Your task to perform on an android device: toggle improve location accuracy Image 0: 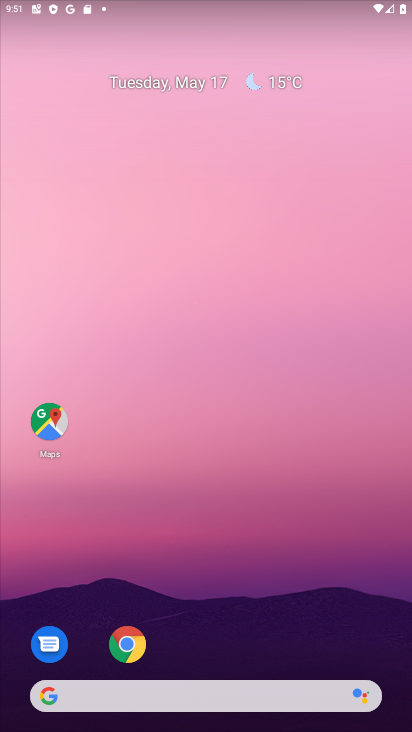
Step 0: drag from (255, 641) to (224, 126)
Your task to perform on an android device: toggle improve location accuracy Image 1: 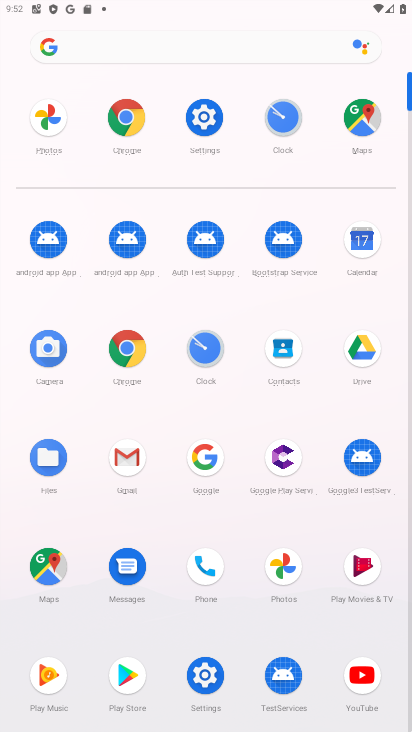
Step 1: click (208, 674)
Your task to perform on an android device: toggle improve location accuracy Image 2: 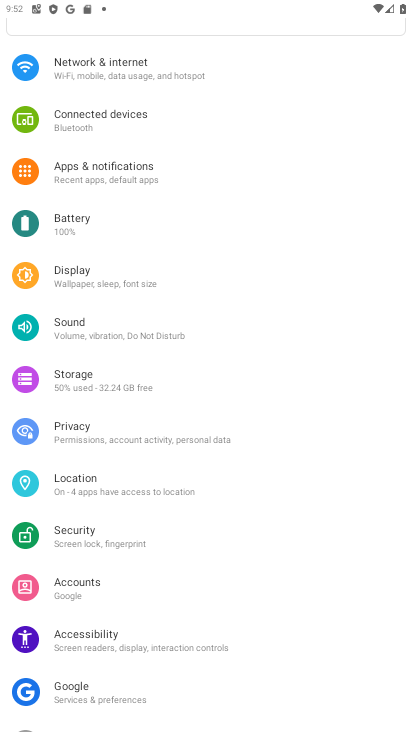
Step 2: click (58, 480)
Your task to perform on an android device: toggle improve location accuracy Image 3: 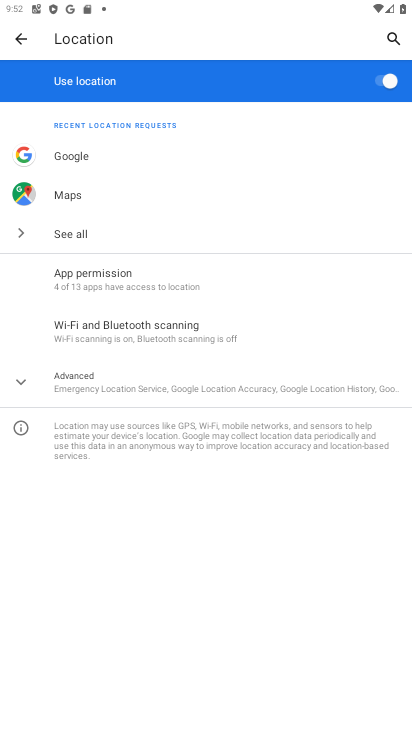
Step 3: click (108, 377)
Your task to perform on an android device: toggle improve location accuracy Image 4: 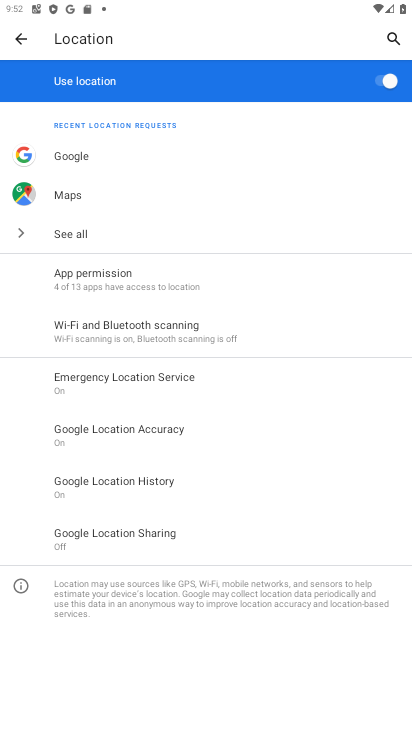
Step 4: click (118, 437)
Your task to perform on an android device: toggle improve location accuracy Image 5: 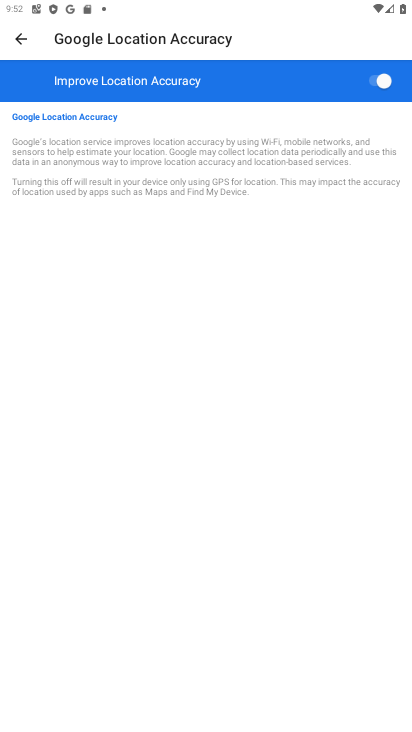
Step 5: click (368, 83)
Your task to perform on an android device: toggle improve location accuracy Image 6: 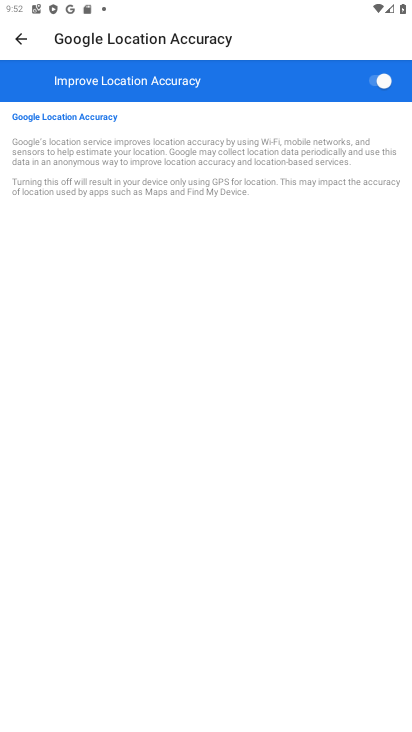
Step 6: click (368, 83)
Your task to perform on an android device: toggle improve location accuracy Image 7: 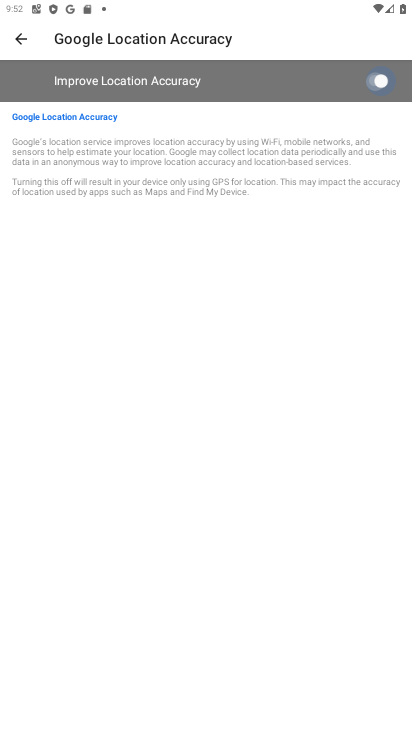
Step 7: click (368, 83)
Your task to perform on an android device: toggle improve location accuracy Image 8: 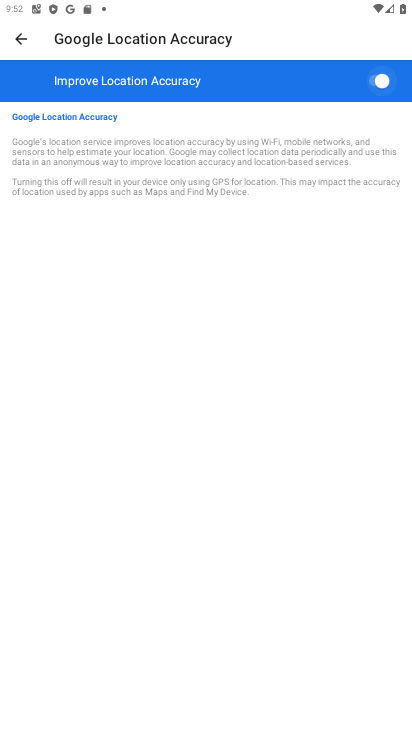
Step 8: click (368, 83)
Your task to perform on an android device: toggle improve location accuracy Image 9: 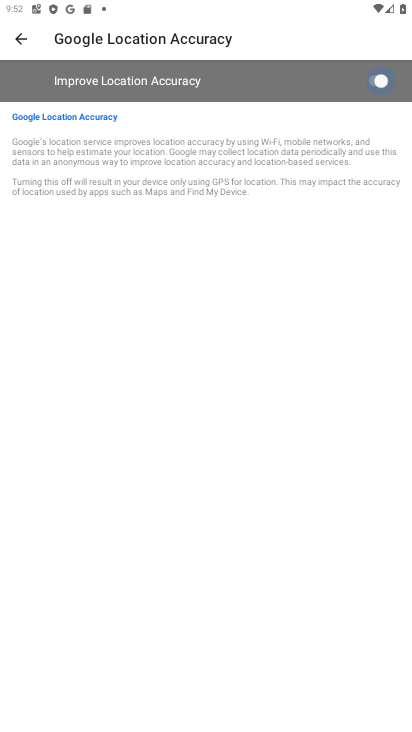
Step 9: click (368, 83)
Your task to perform on an android device: toggle improve location accuracy Image 10: 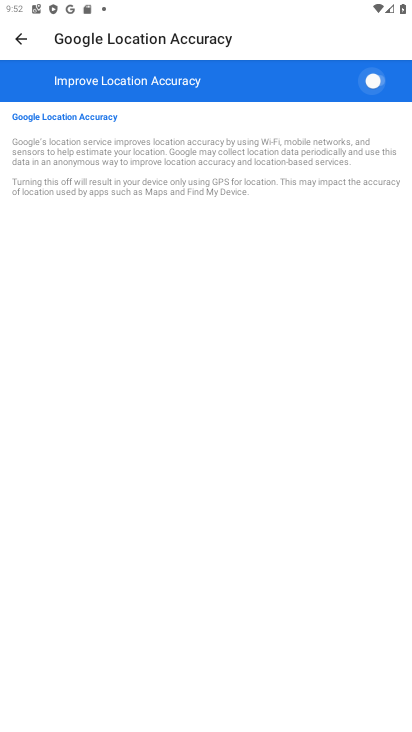
Step 10: click (368, 83)
Your task to perform on an android device: toggle improve location accuracy Image 11: 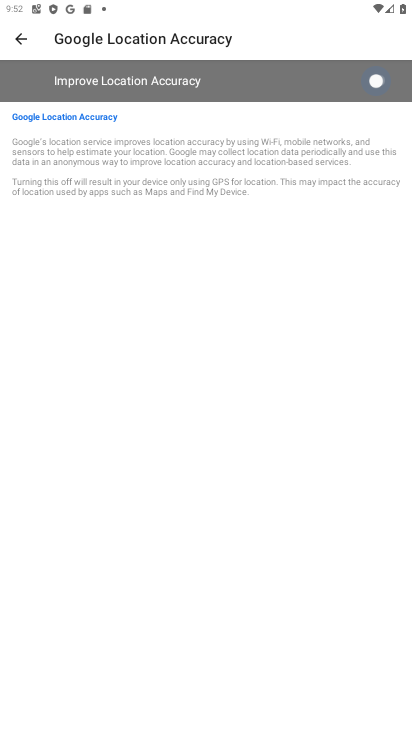
Step 11: click (368, 83)
Your task to perform on an android device: toggle improve location accuracy Image 12: 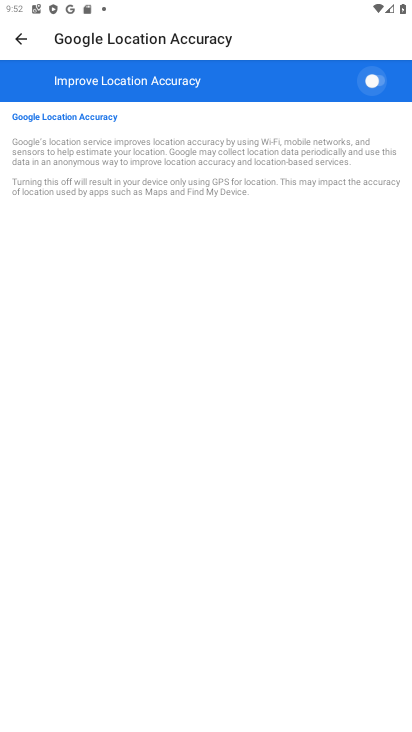
Step 12: click (368, 83)
Your task to perform on an android device: toggle improve location accuracy Image 13: 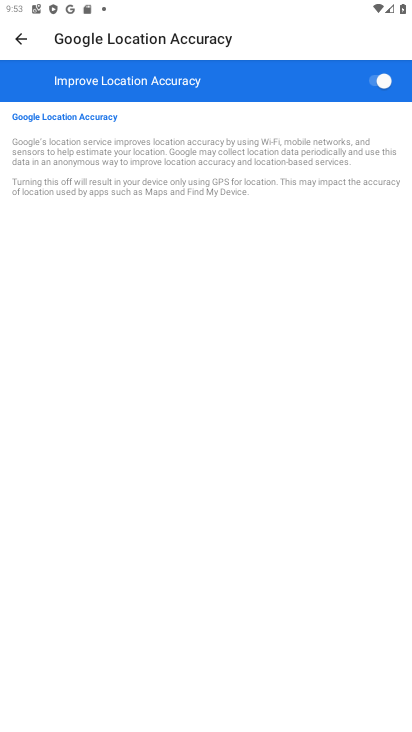
Step 13: task complete